Your task to perform on an android device: install app "Google Home" Image 0: 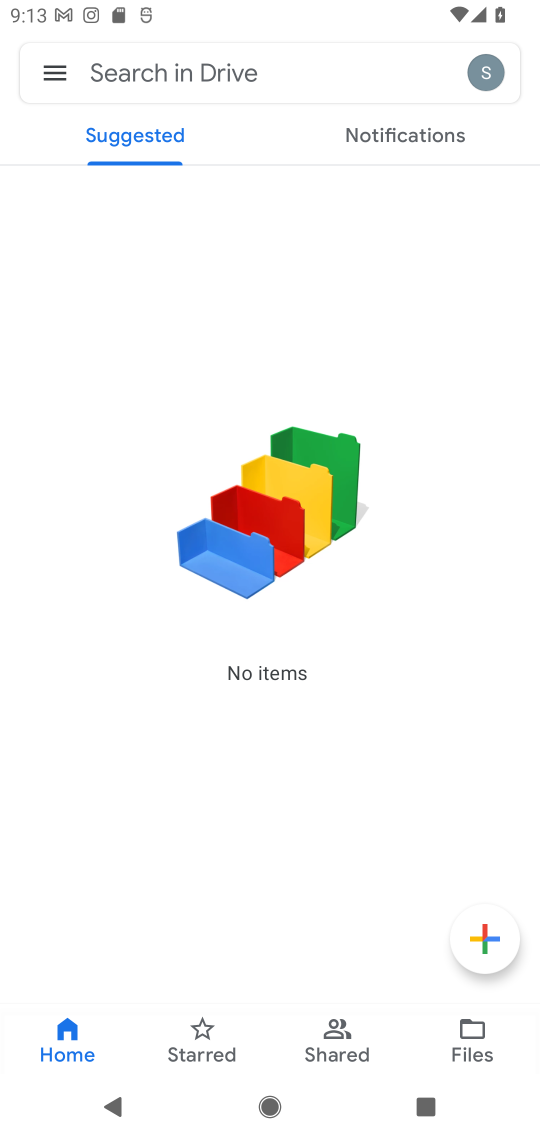
Step 0: press home button
Your task to perform on an android device: install app "Google Home" Image 1: 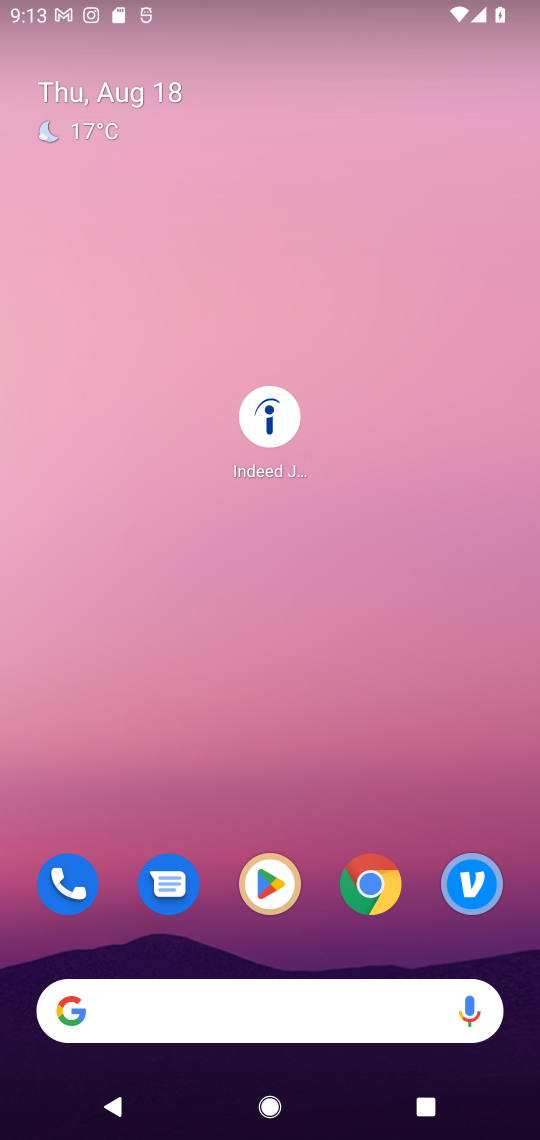
Step 1: drag from (184, 1017) to (253, 154)
Your task to perform on an android device: install app "Google Home" Image 2: 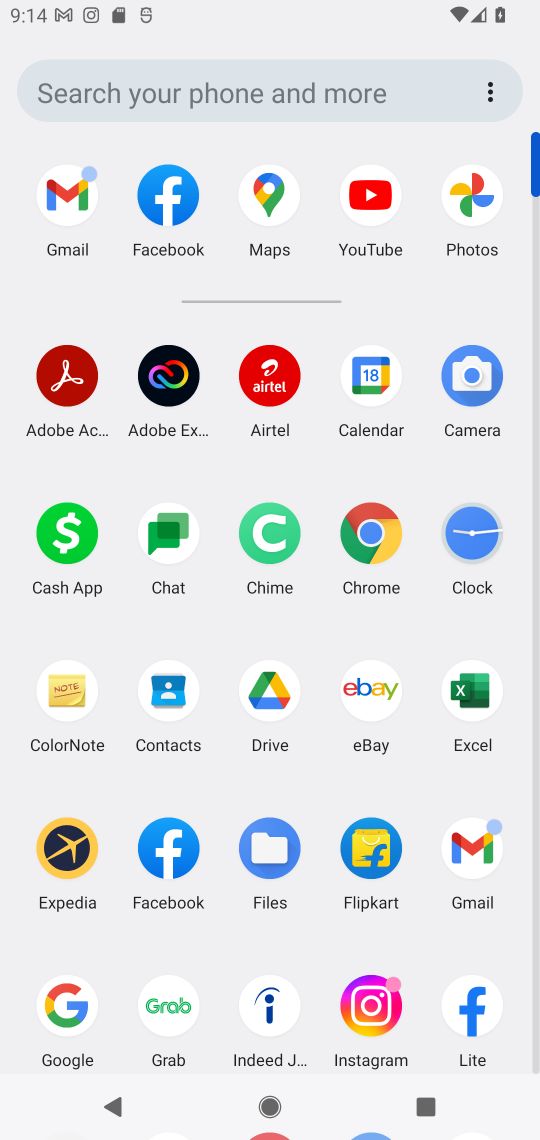
Step 2: drag from (212, 955) to (257, 253)
Your task to perform on an android device: install app "Google Home" Image 3: 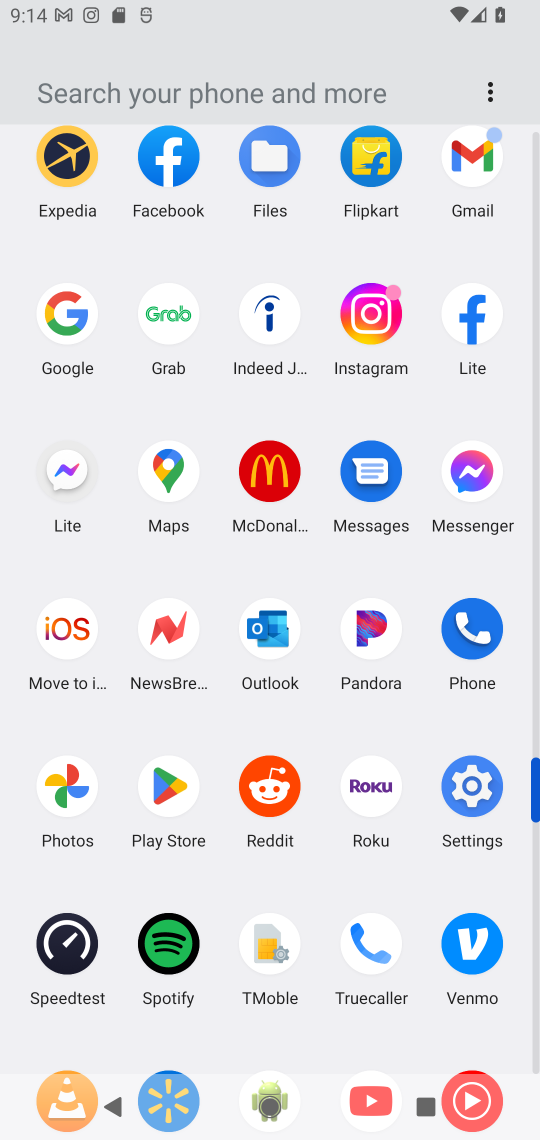
Step 3: click (175, 793)
Your task to perform on an android device: install app "Google Home" Image 4: 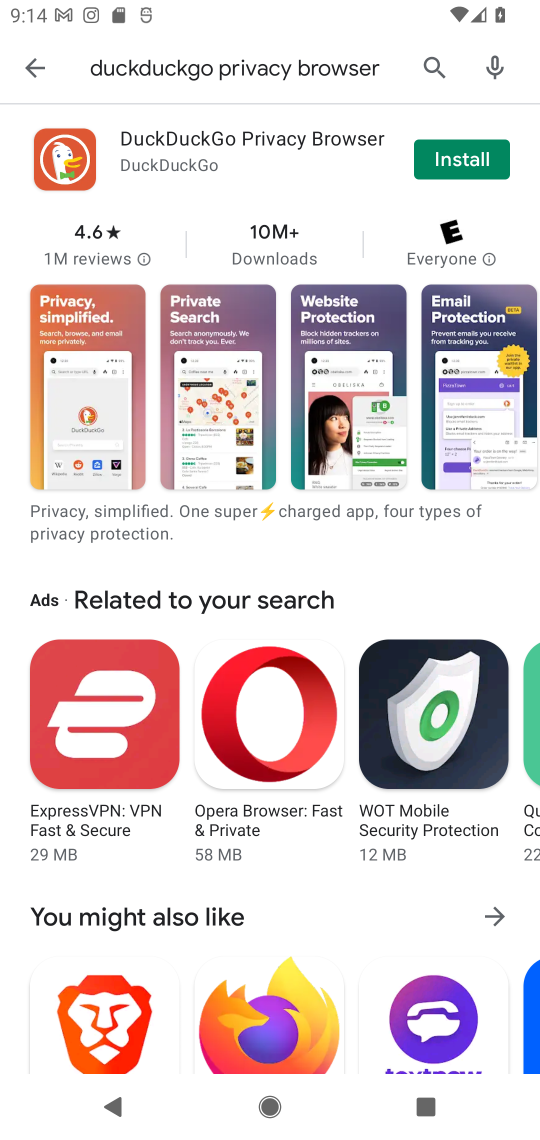
Step 4: press back button
Your task to perform on an android device: install app "Google Home" Image 5: 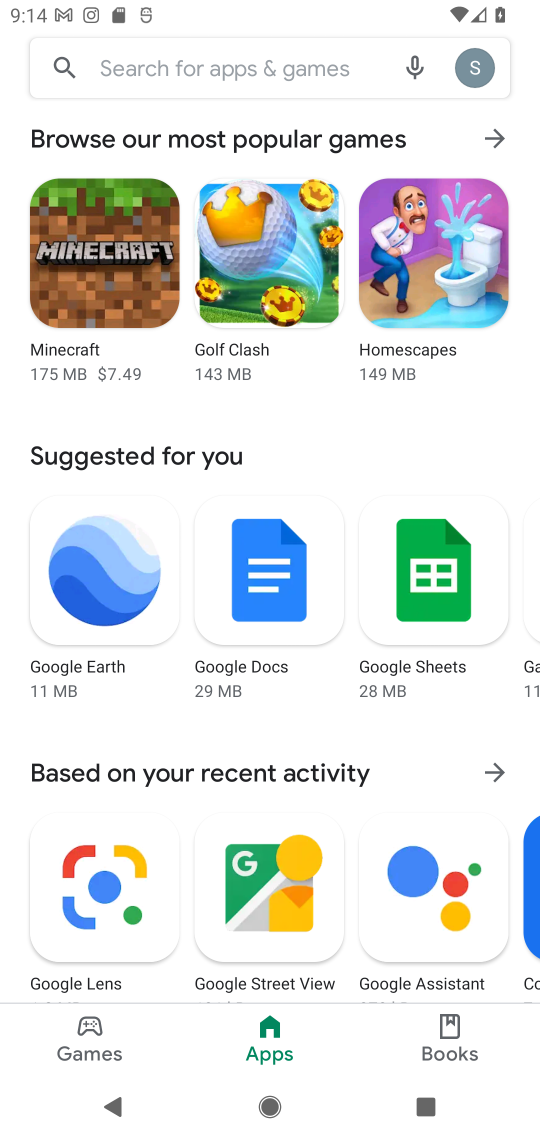
Step 5: click (238, 69)
Your task to perform on an android device: install app "Google Home" Image 6: 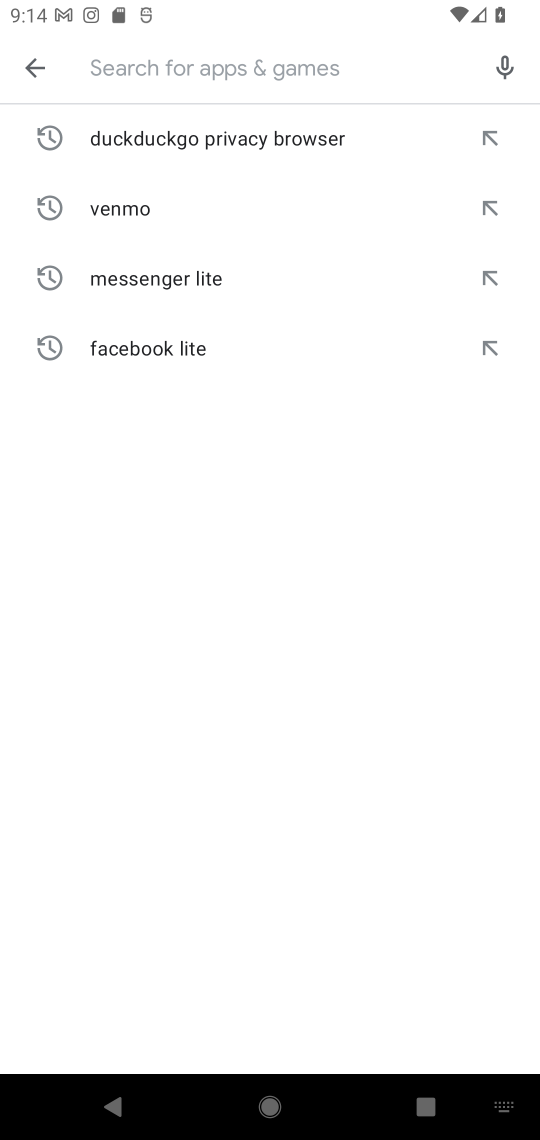
Step 6: type "Google Home"
Your task to perform on an android device: install app "Google Home" Image 7: 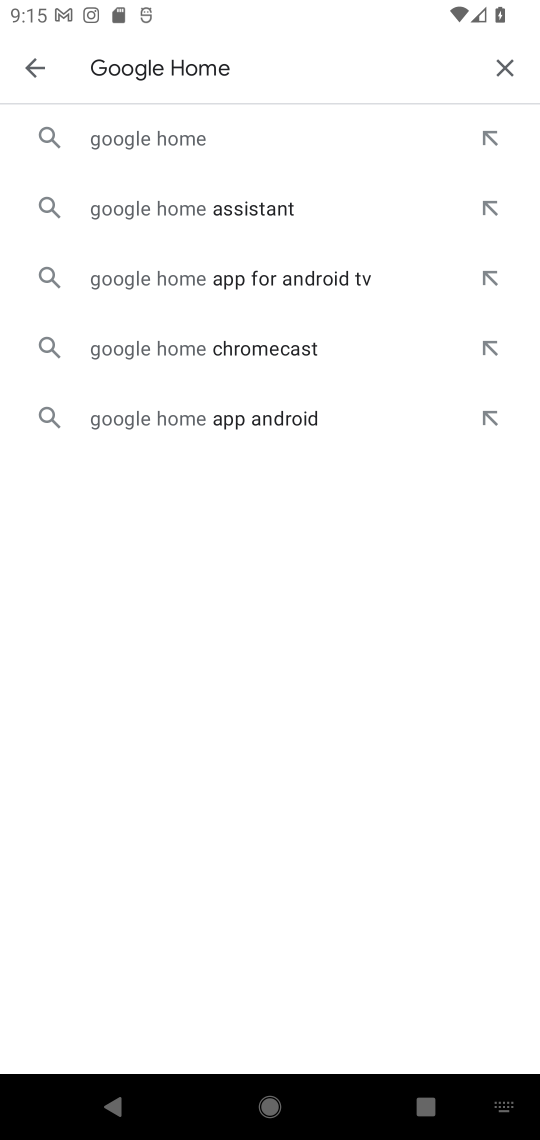
Step 7: click (170, 141)
Your task to perform on an android device: install app "Google Home" Image 8: 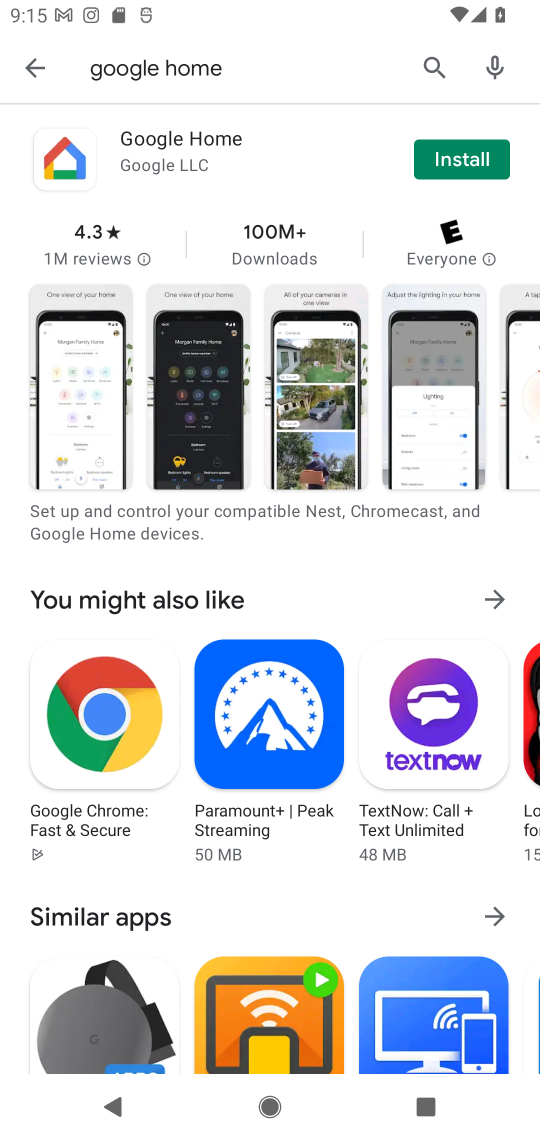
Step 8: click (461, 164)
Your task to perform on an android device: install app "Google Home" Image 9: 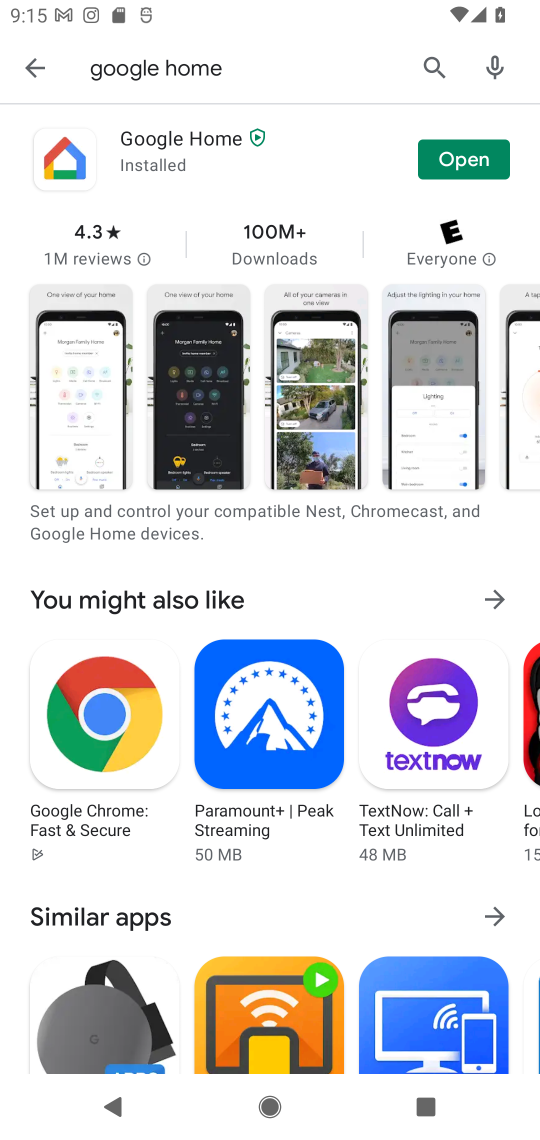
Step 9: task complete